Your task to perform on an android device: open app "HBO Max: Stream TV & Movies" Image 0: 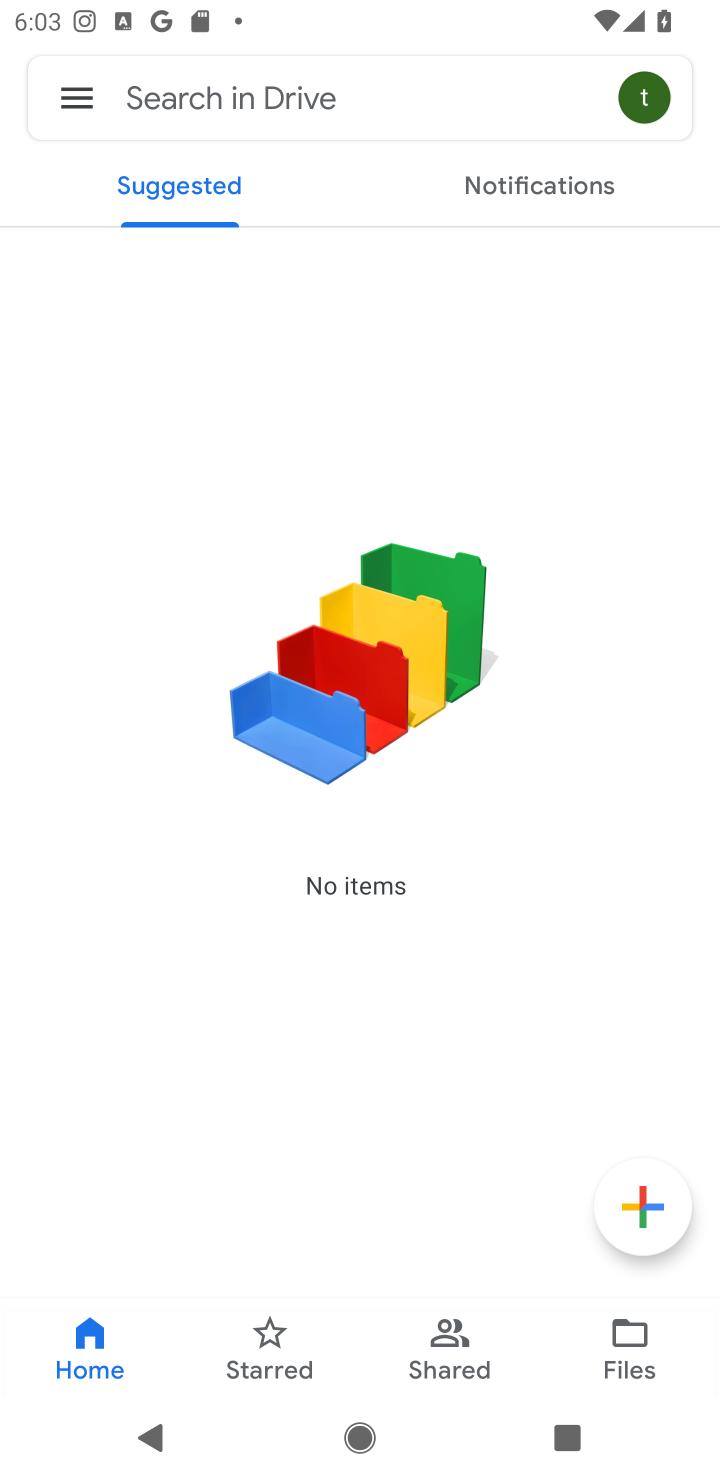
Step 0: press home button
Your task to perform on an android device: open app "HBO Max: Stream TV & Movies" Image 1: 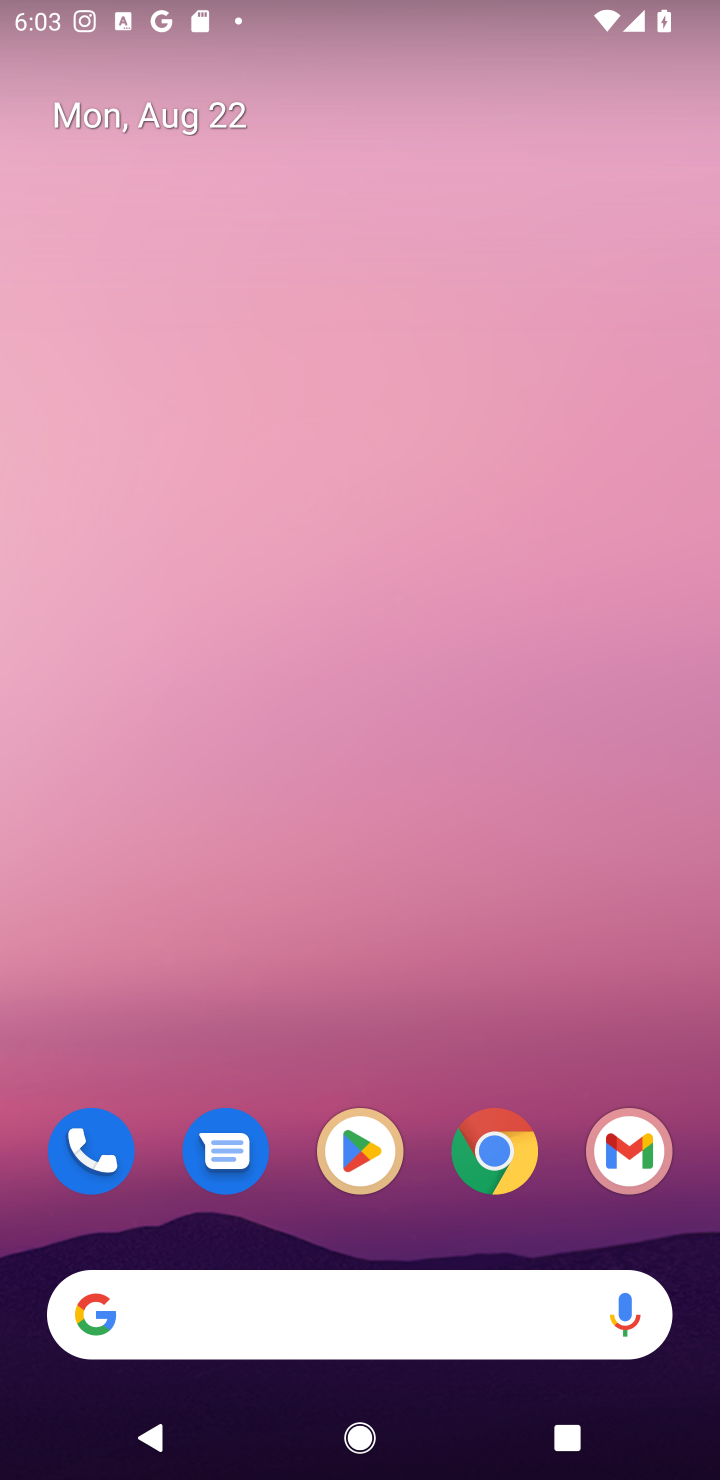
Step 1: click (361, 1132)
Your task to perform on an android device: open app "HBO Max: Stream TV & Movies" Image 2: 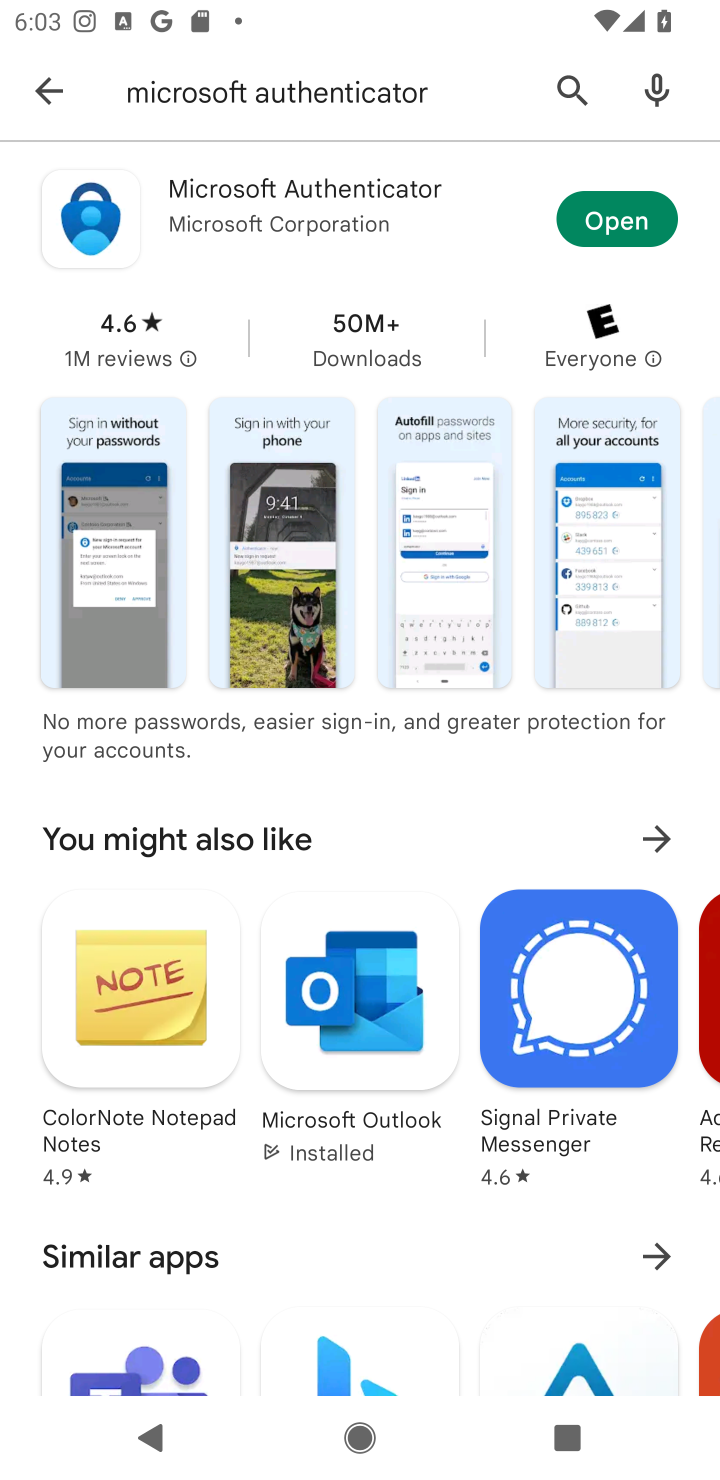
Step 2: click (561, 81)
Your task to perform on an android device: open app "HBO Max: Stream TV & Movies" Image 3: 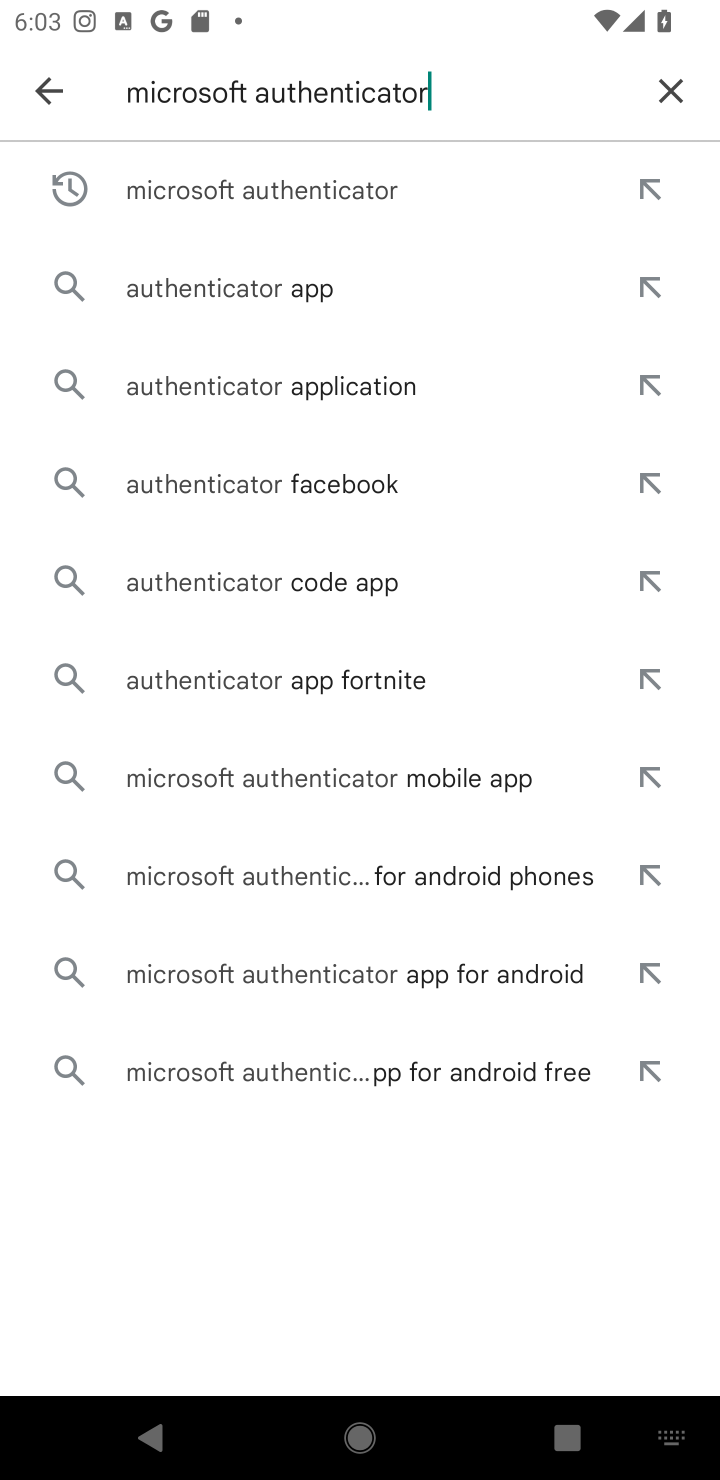
Step 3: click (673, 94)
Your task to perform on an android device: open app "HBO Max: Stream TV & Movies" Image 4: 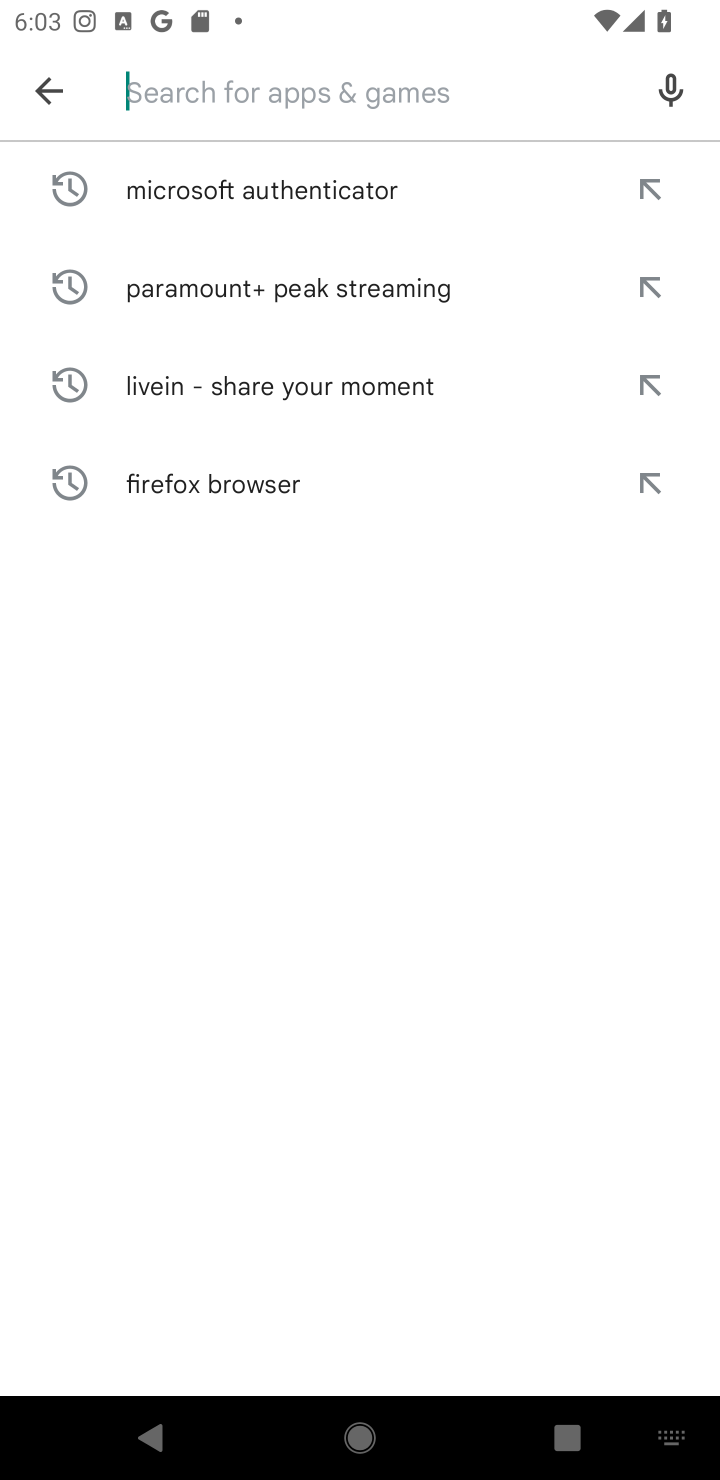
Step 4: type "HBO Max: Stream TV & Movies"
Your task to perform on an android device: open app "HBO Max: Stream TV & Movies" Image 5: 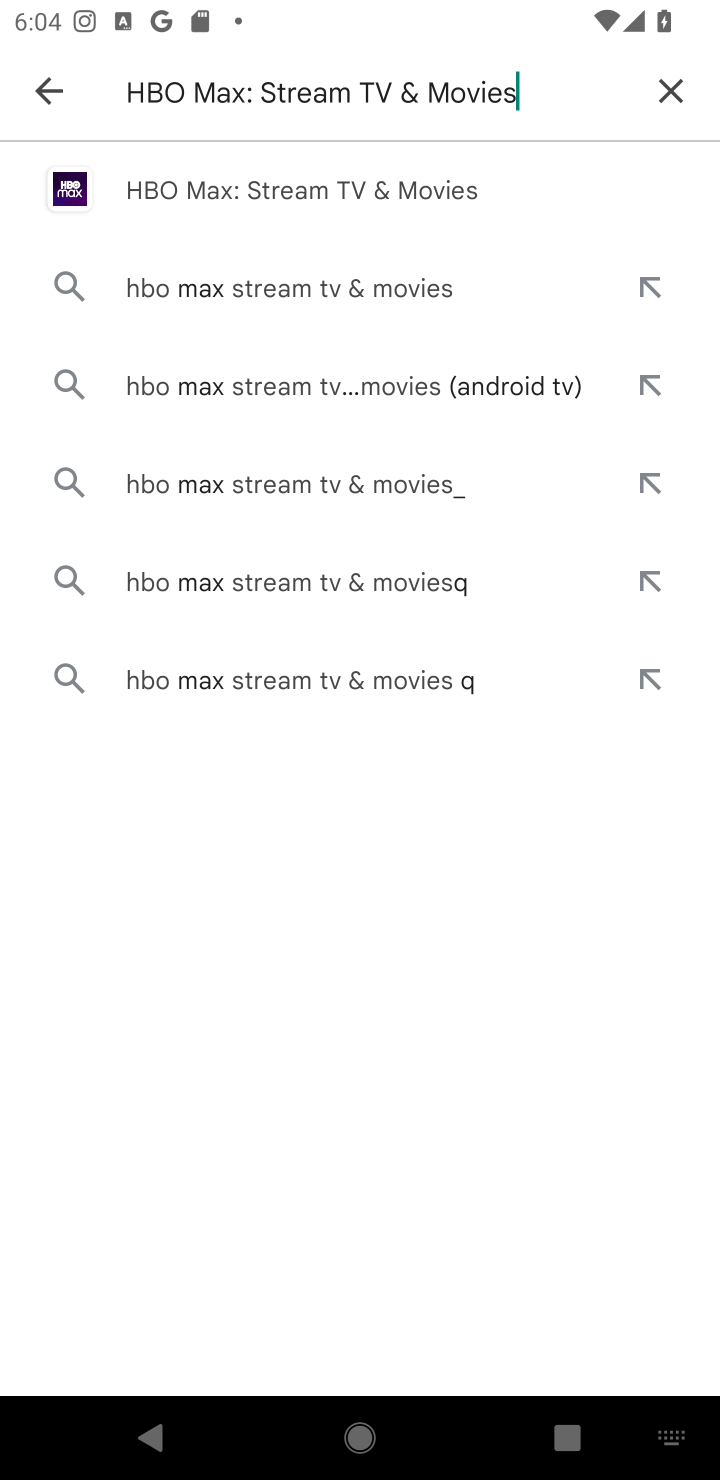
Step 5: click (359, 190)
Your task to perform on an android device: open app "HBO Max: Stream TV & Movies" Image 6: 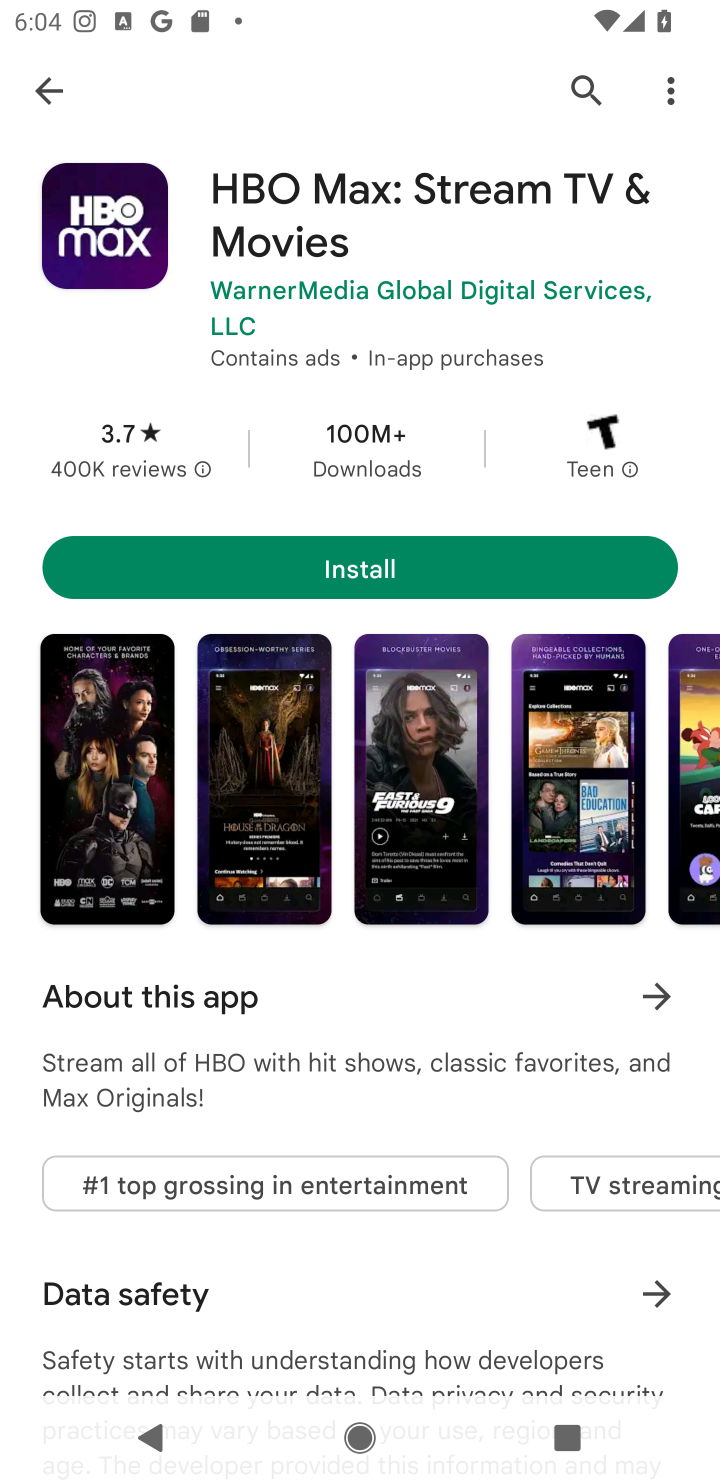
Step 6: task complete